Your task to perform on an android device: open a bookmark in the chrome app Image 0: 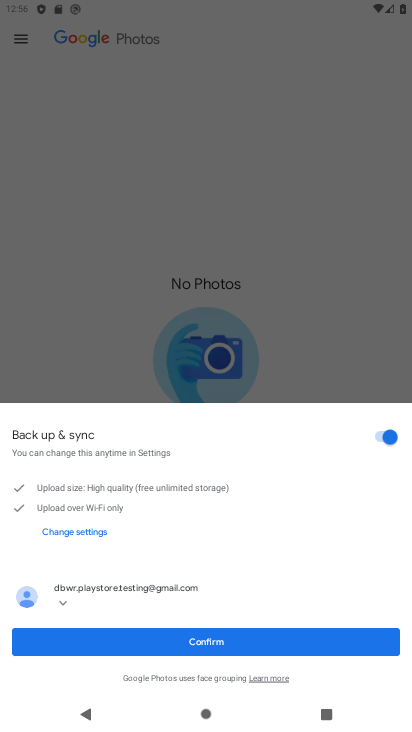
Step 0: press home button
Your task to perform on an android device: open a bookmark in the chrome app Image 1: 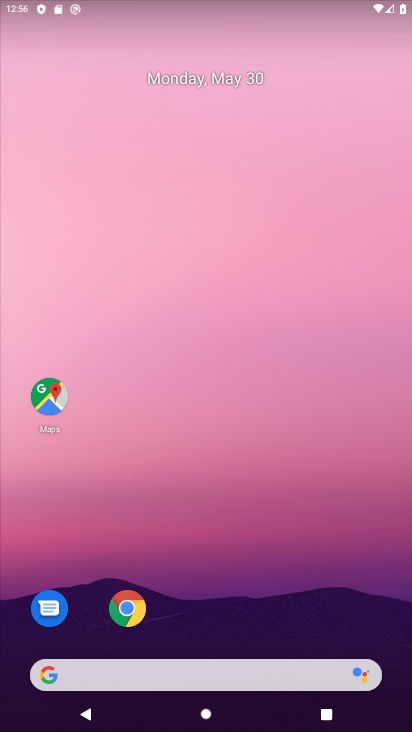
Step 1: click (124, 607)
Your task to perform on an android device: open a bookmark in the chrome app Image 2: 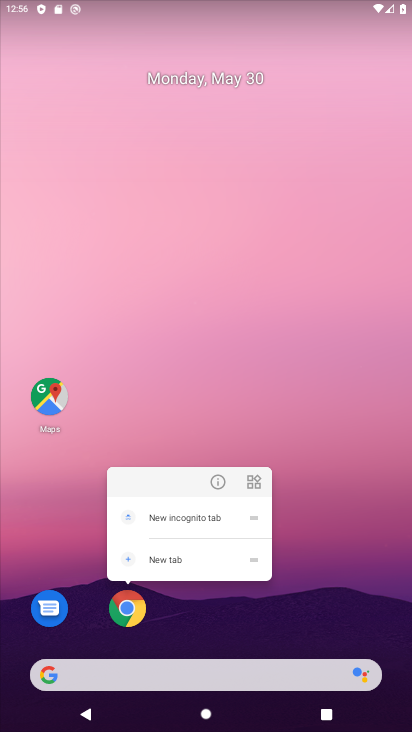
Step 2: click (218, 479)
Your task to perform on an android device: open a bookmark in the chrome app Image 3: 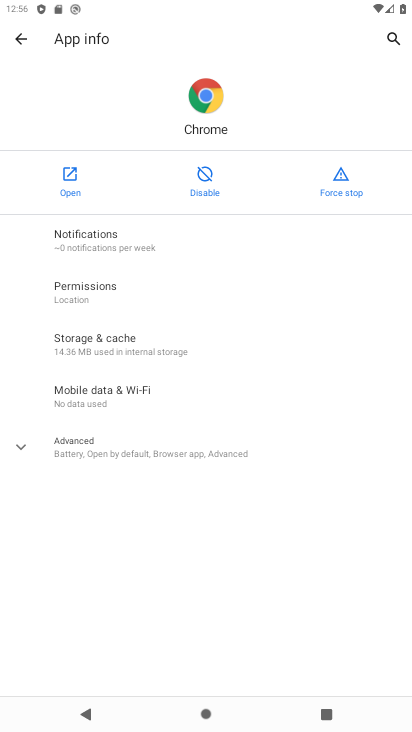
Step 3: click (67, 175)
Your task to perform on an android device: open a bookmark in the chrome app Image 4: 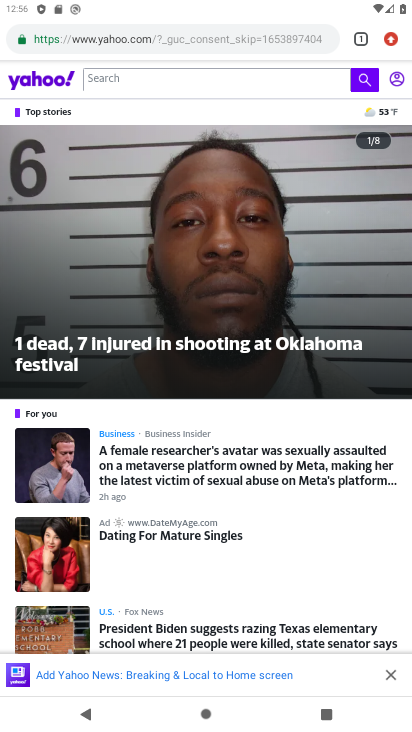
Step 4: click (391, 40)
Your task to perform on an android device: open a bookmark in the chrome app Image 5: 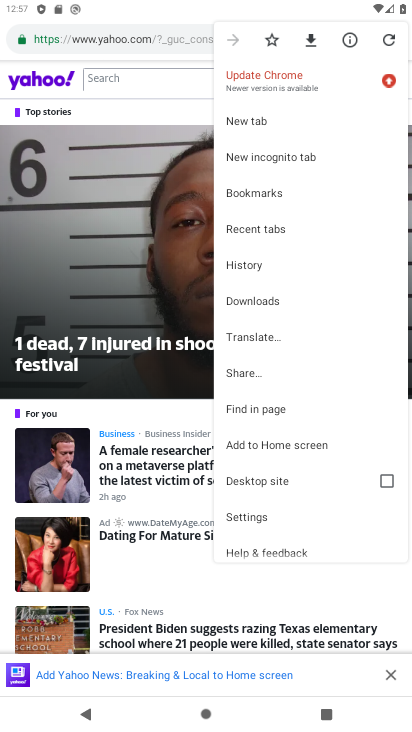
Step 5: click (258, 192)
Your task to perform on an android device: open a bookmark in the chrome app Image 6: 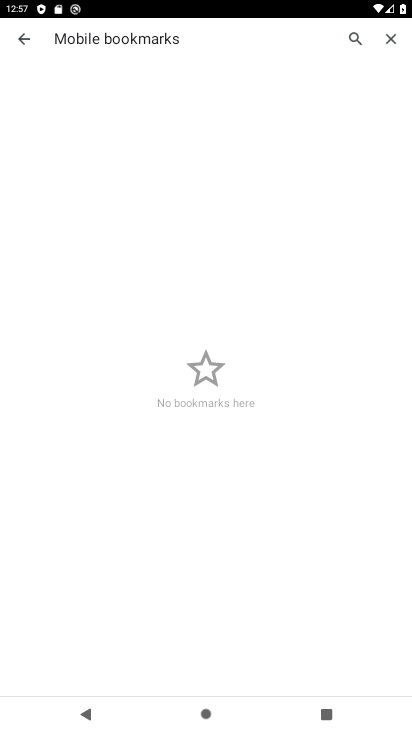
Step 6: task complete